Your task to perform on an android device: Open Yahoo.com Image 0: 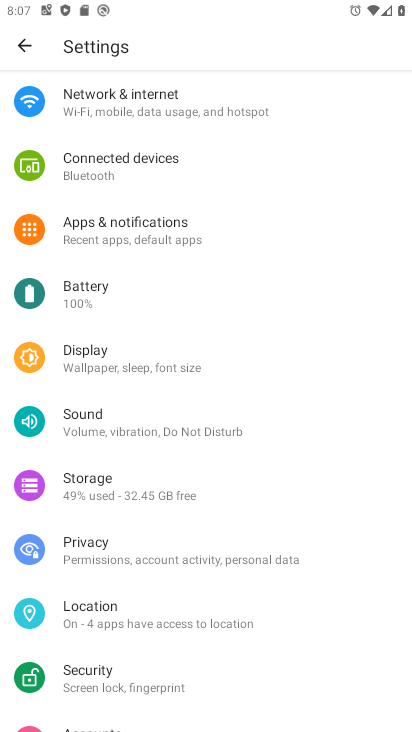
Step 0: press home button
Your task to perform on an android device: Open Yahoo.com Image 1: 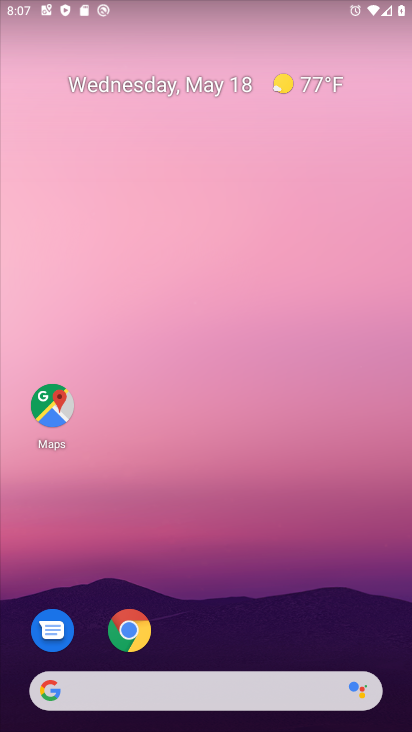
Step 1: click (120, 630)
Your task to perform on an android device: Open Yahoo.com Image 2: 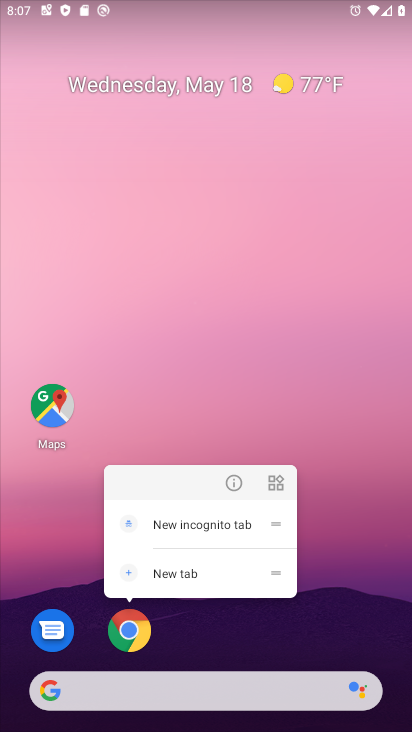
Step 2: click (128, 646)
Your task to perform on an android device: Open Yahoo.com Image 3: 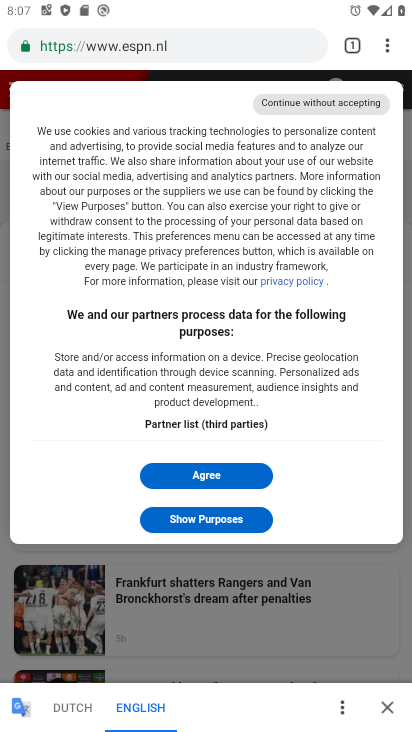
Step 3: drag from (388, 46) to (101, 45)
Your task to perform on an android device: Open Yahoo.com Image 4: 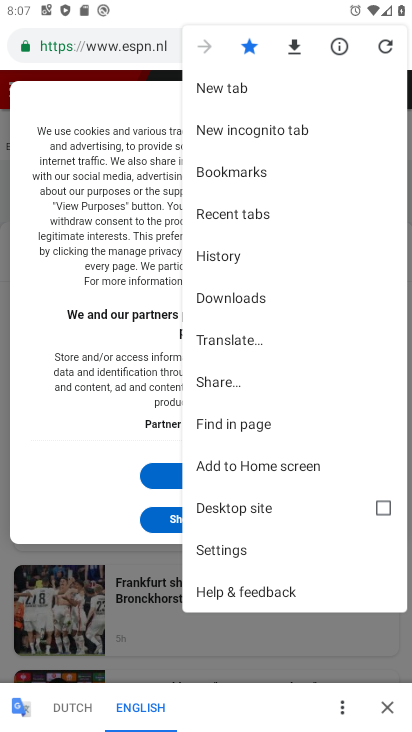
Step 4: click (101, 45)
Your task to perform on an android device: Open Yahoo.com Image 5: 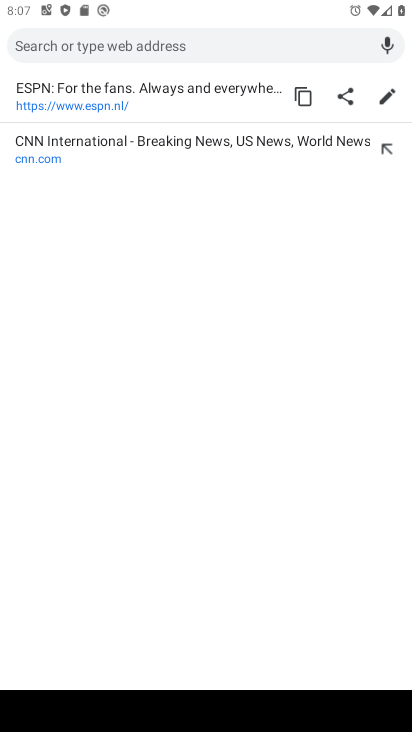
Step 5: type "yahoo.com"
Your task to perform on an android device: Open Yahoo.com Image 6: 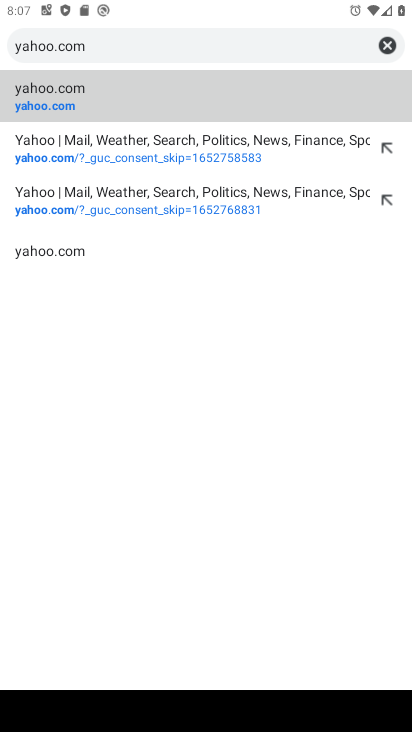
Step 6: click (65, 99)
Your task to perform on an android device: Open Yahoo.com Image 7: 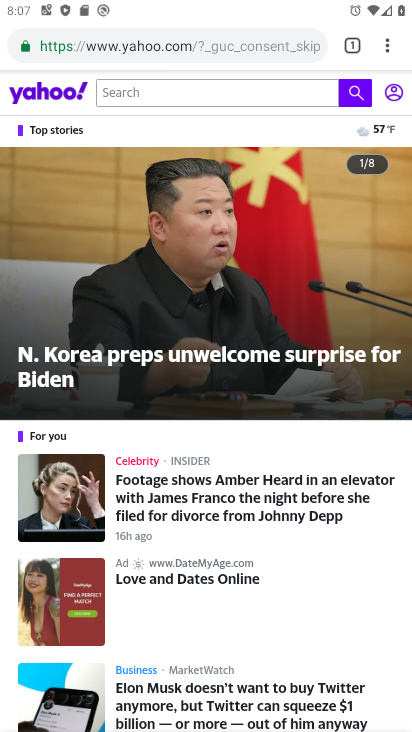
Step 7: task complete